Your task to perform on an android device: Open Android settings Image 0: 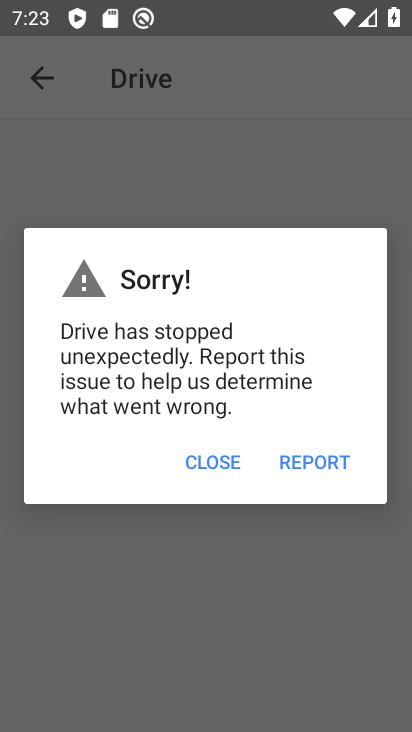
Step 0: press home button
Your task to perform on an android device: Open Android settings Image 1: 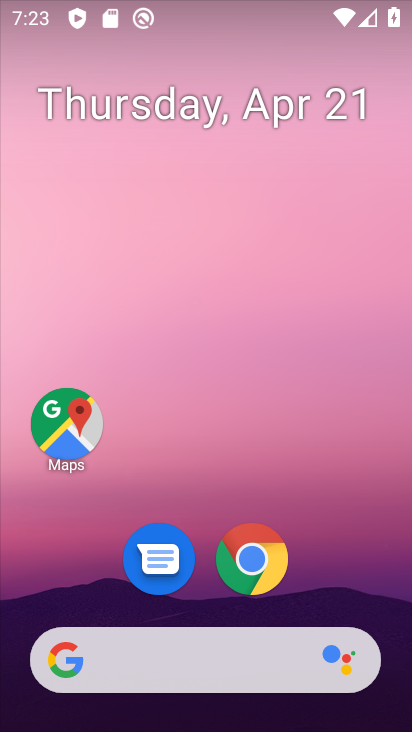
Step 1: drag from (369, 585) to (357, 156)
Your task to perform on an android device: Open Android settings Image 2: 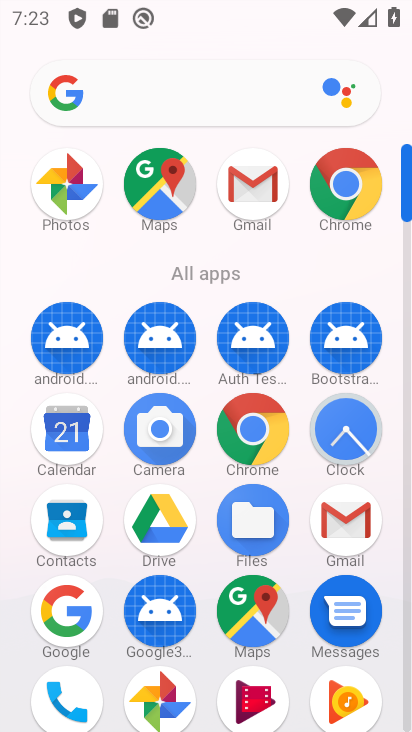
Step 2: drag from (204, 559) to (204, 292)
Your task to perform on an android device: Open Android settings Image 3: 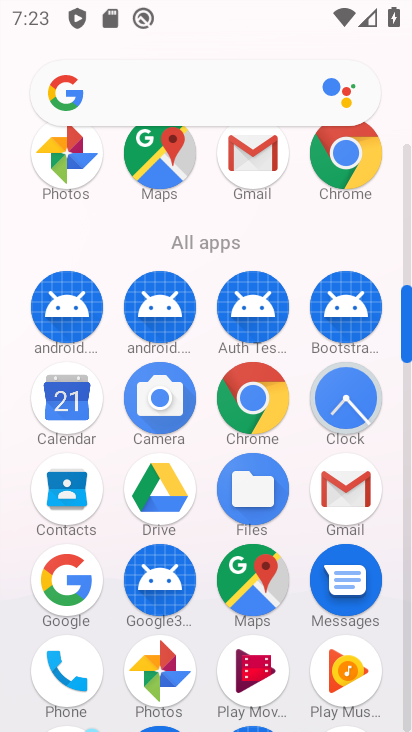
Step 3: drag from (213, 637) to (235, 278)
Your task to perform on an android device: Open Android settings Image 4: 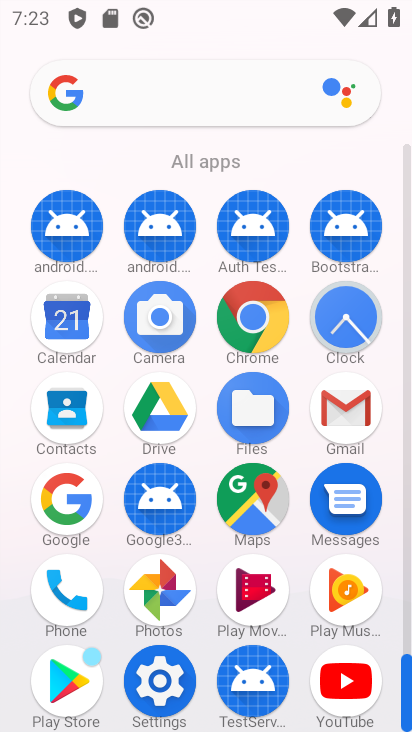
Step 4: click (162, 689)
Your task to perform on an android device: Open Android settings Image 5: 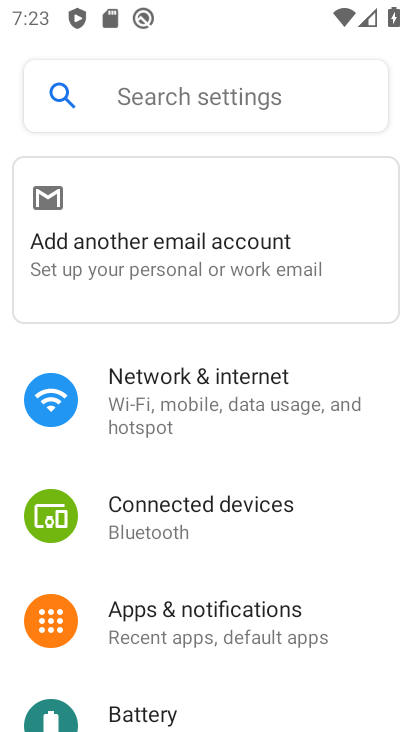
Step 5: task complete